Your task to perform on an android device: turn off sleep mode Image 0: 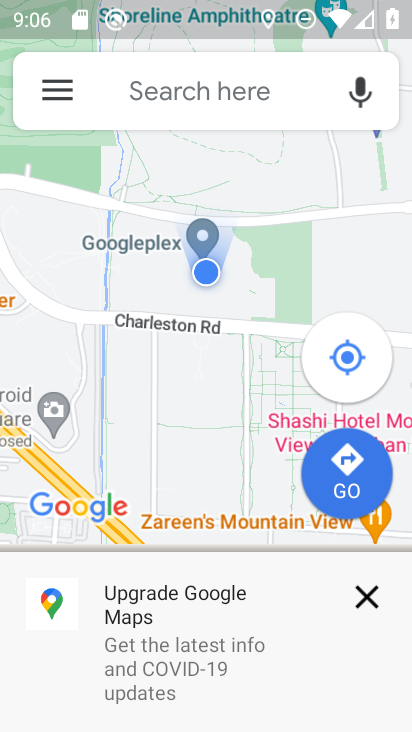
Step 0: press home button
Your task to perform on an android device: turn off sleep mode Image 1: 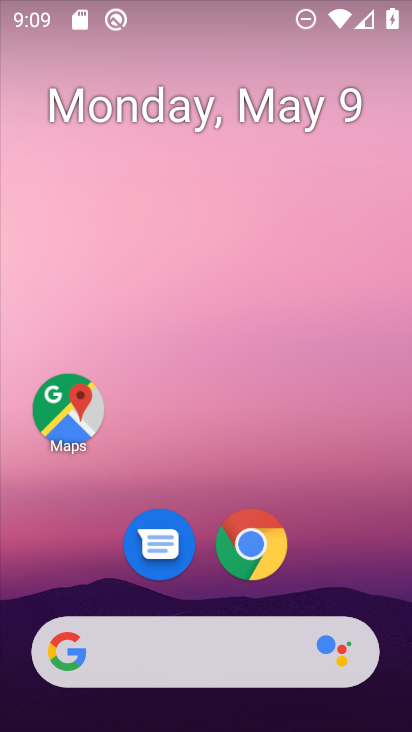
Step 1: drag from (297, 542) to (137, 23)
Your task to perform on an android device: turn off sleep mode Image 2: 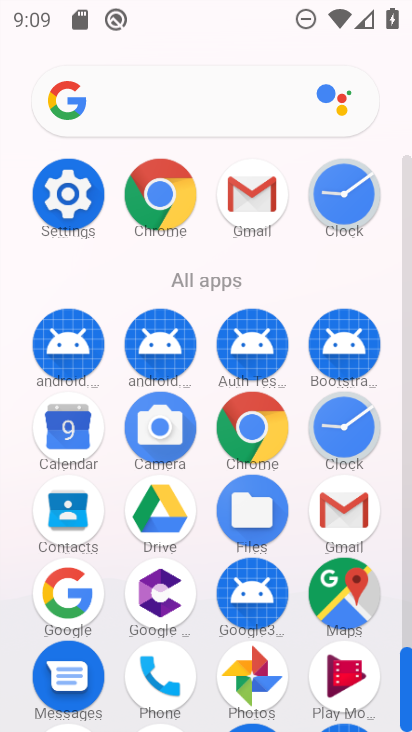
Step 2: click (73, 198)
Your task to perform on an android device: turn off sleep mode Image 3: 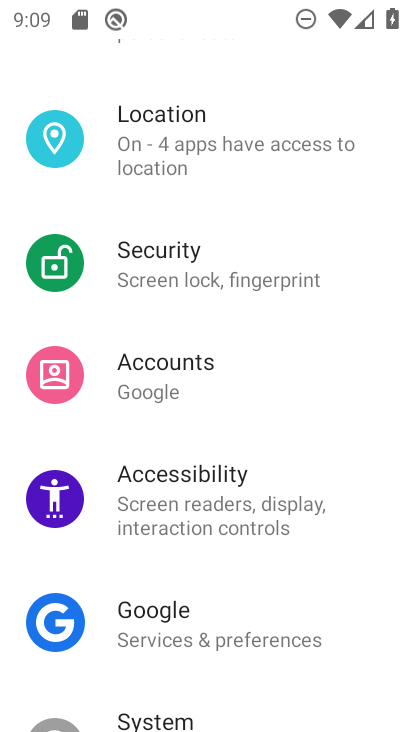
Step 3: drag from (182, 305) to (344, 691)
Your task to perform on an android device: turn off sleep mode Image 4: 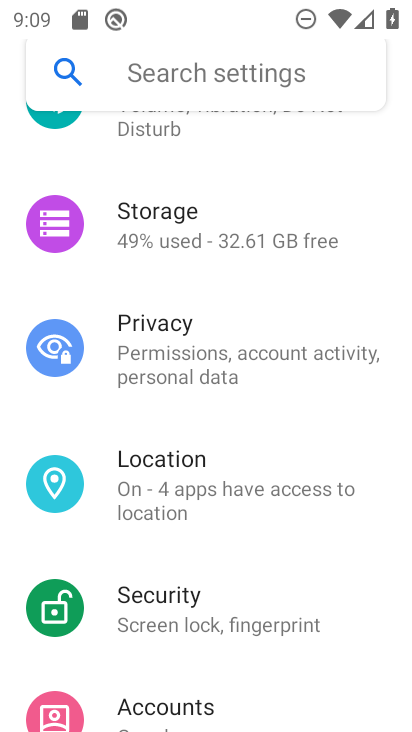
Step 4: drag from (179, 292) to (183, 696)
Your task to perform on an android device: turn off sleep mode Image 5: 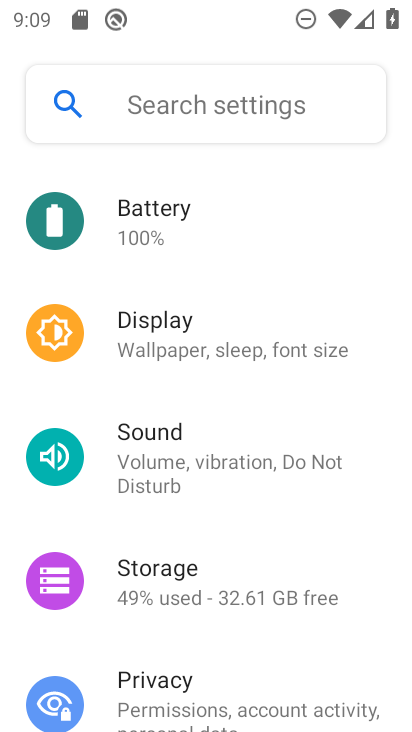
Step 5: click (146, 462)
Your task to perform on an android device: turn off sleep mode Image 6: 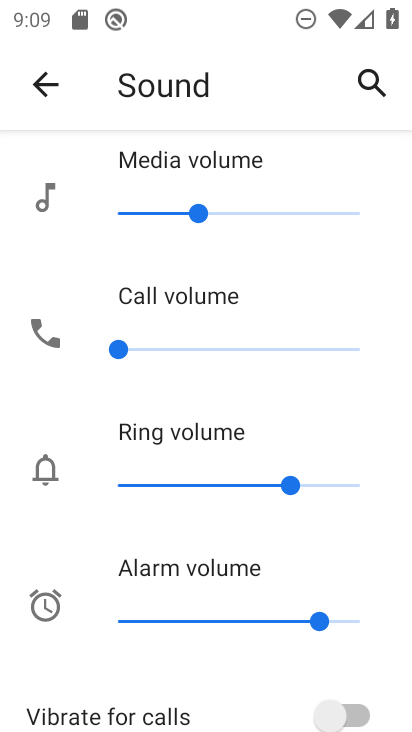
Step 6: task complete